Your task to perform on an android device: Open CNN.com Image 0: 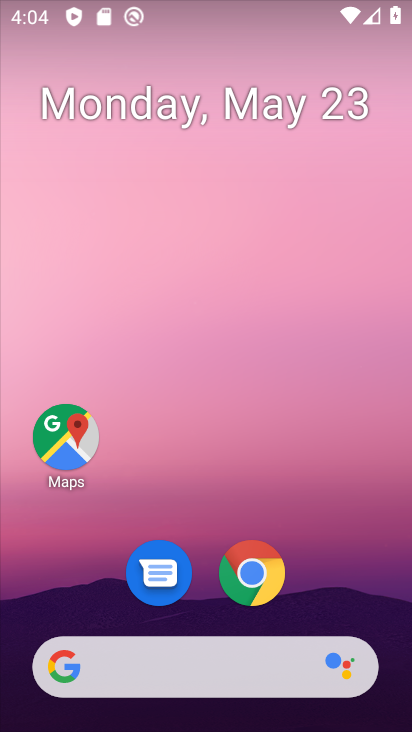
Step 0: click (220, 104)
Your task to perform on an android device: Open CNN.com Image 1: 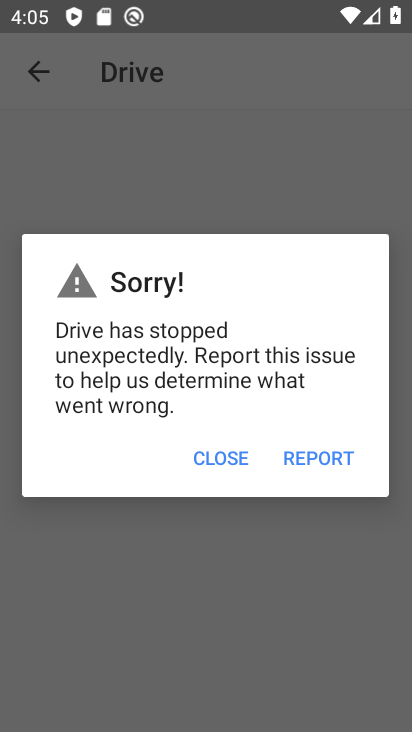
Step 1: press home button
Your task to perform on an android device: Open CNN.com Image 2: 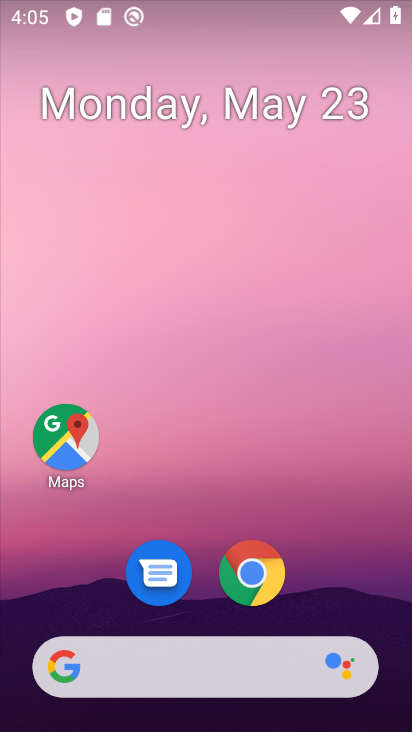
Step 2: click (251, 578)
Your task to perform on an android device: Open CNN.com Image 3: 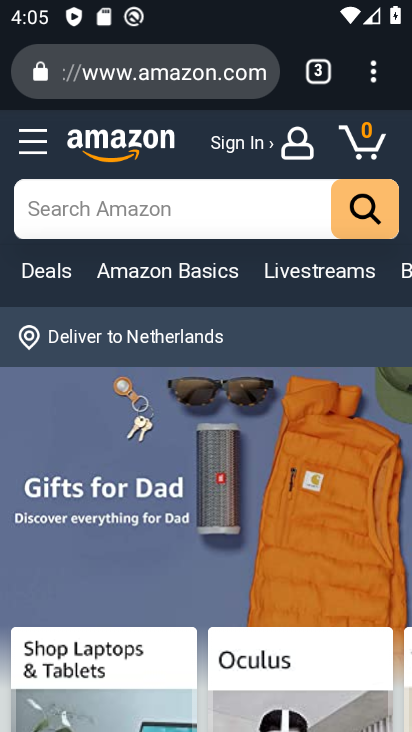
Step 3: click (374, 79)
Your task to perform on an android device: Open CNN.com Image 4: 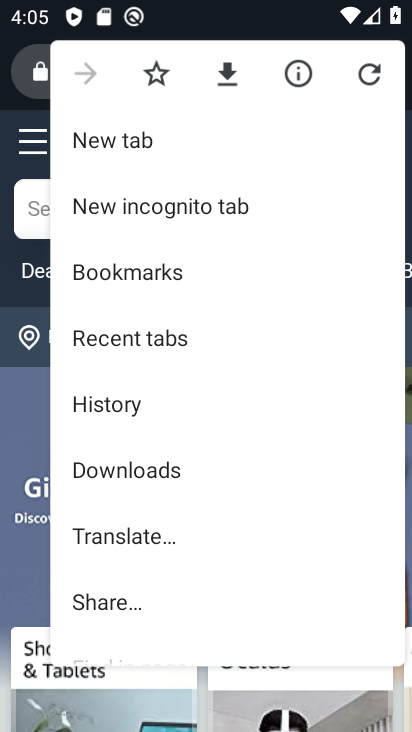
Step 4: click (121, 136)
Your task to perform on an android device: Open CNN.com Image 5: 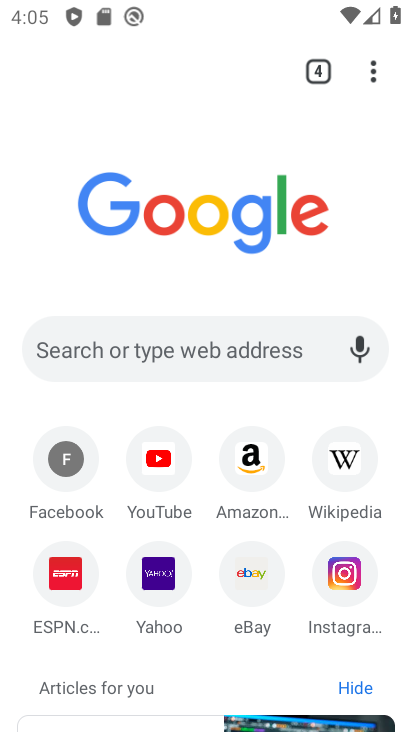
Step 5: click (238, 336)
Your task to perform on an android device: Open CNN.com Image 6: 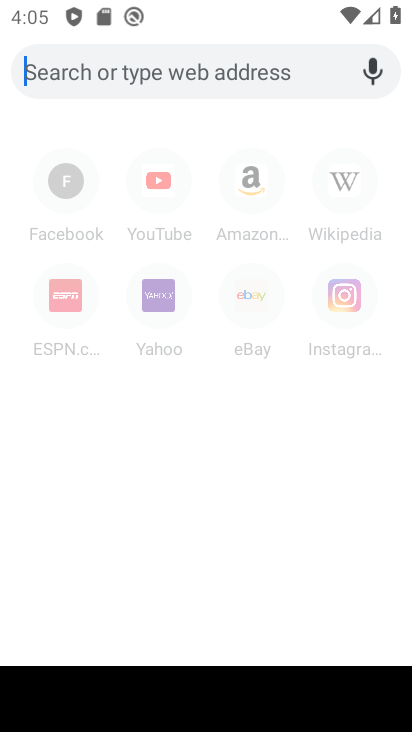
Step 6: type "CNN.com"
Your task to perform on an android device: Open CNN.com Image 7: 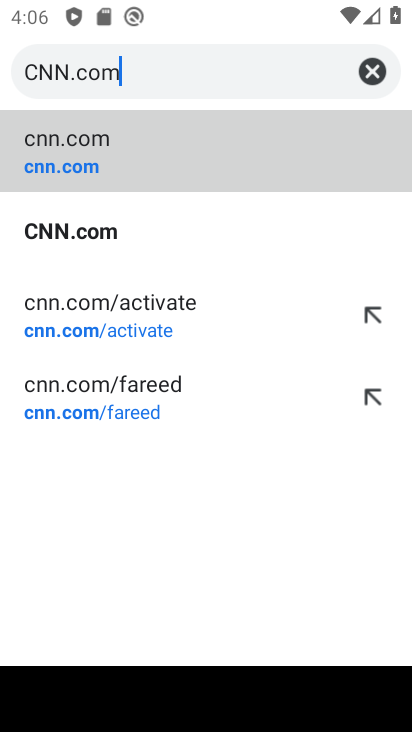
Step 7: click (96, 140)
Your task to perform on an android device: Open CNN.com Image 8: 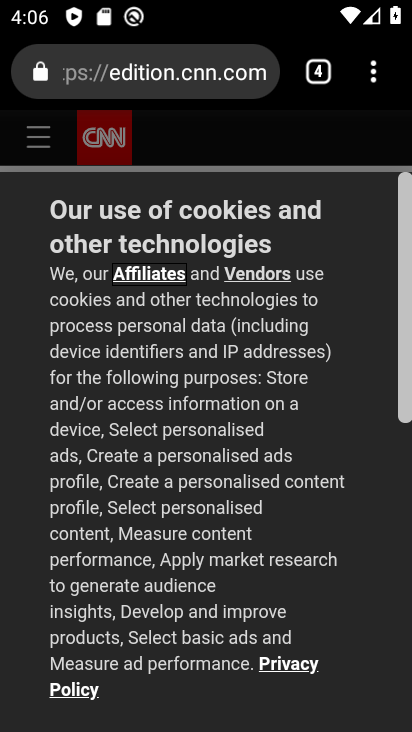
Step 8: task complete